Your task to perform on an android device: open the mobile data screen to see how much data has been used Image 0: 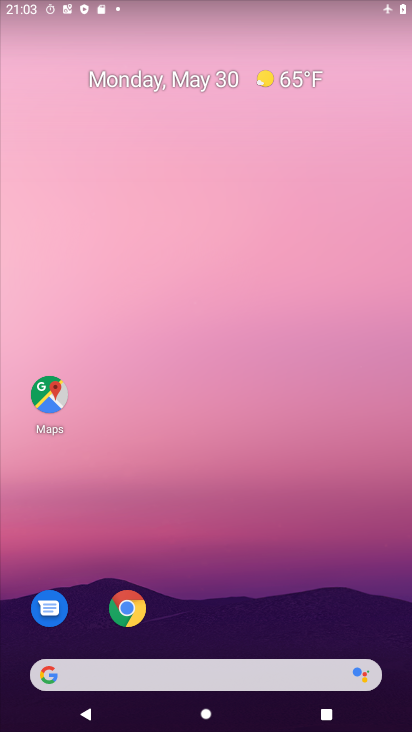
Step 0: drag from (223, 629) to (255, 194)
Your task to perform on an android device: open the mobile data screen to see how much data has been used Image 1: 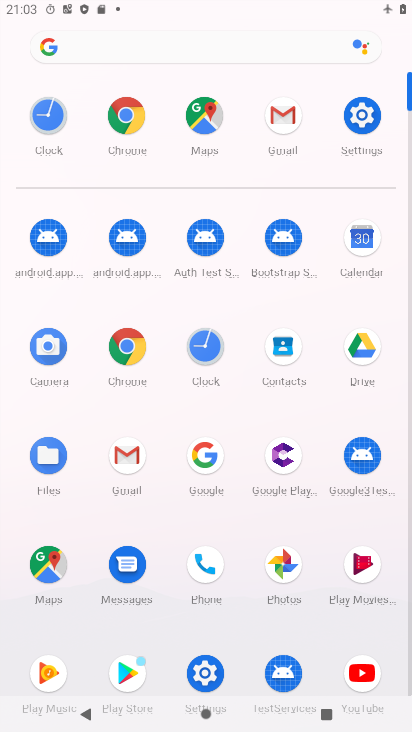
Step 1: click (369, 118)
Your task to perform on an android device: open the mobile data screen to see how much data has been used Image 2: 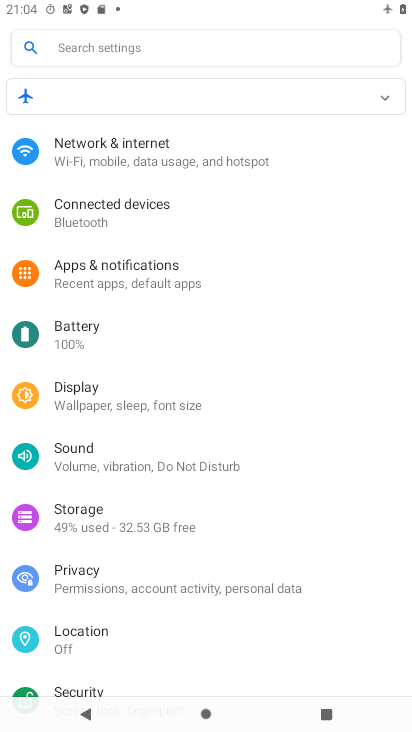
Step 2: click (173, 167)
Your task to perform on an android device: open the mobile data screen to see how much data has been used Image 3: 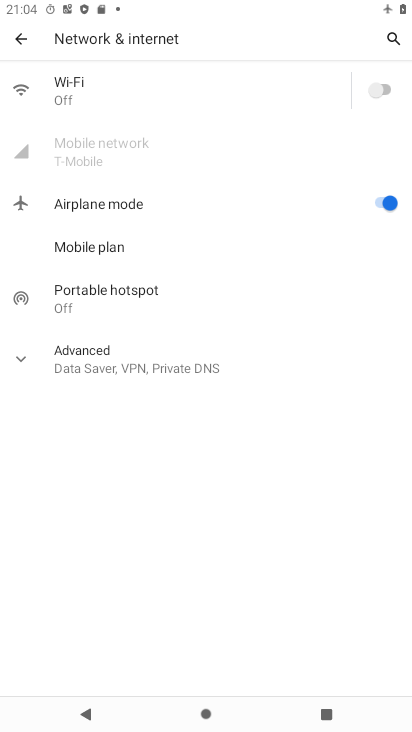
Step 3: click (112, 149)
Your task to perform on an android device: open the mobile data screen to see how much data has been used Image 4: 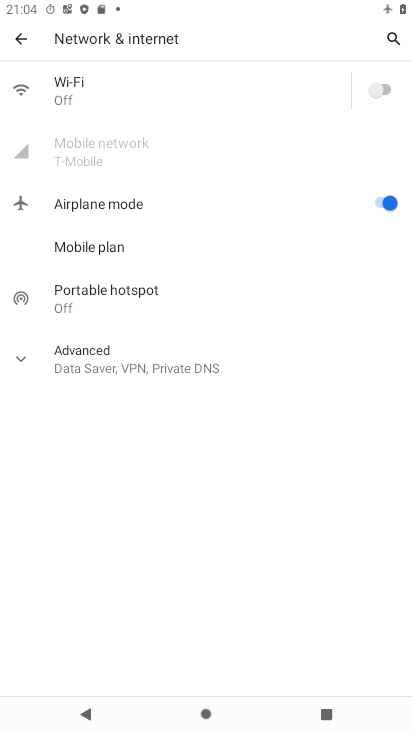
Step 4: task complete